Your task to perform on an android device: toggle airplane mode Image 0: 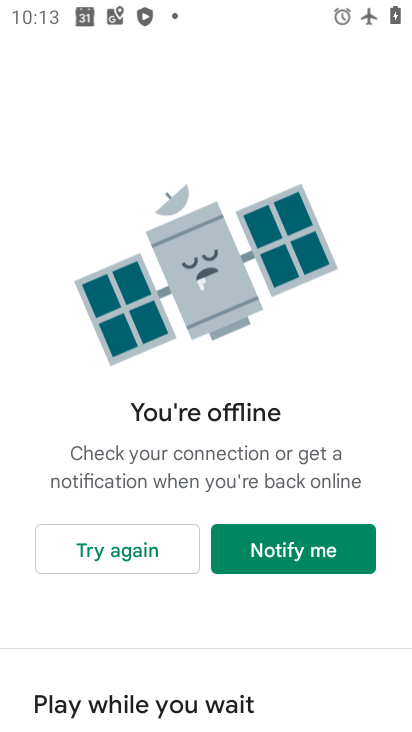
Step 0: press home button
Your task to perform on an android device: toggle airplane mode Image 1: 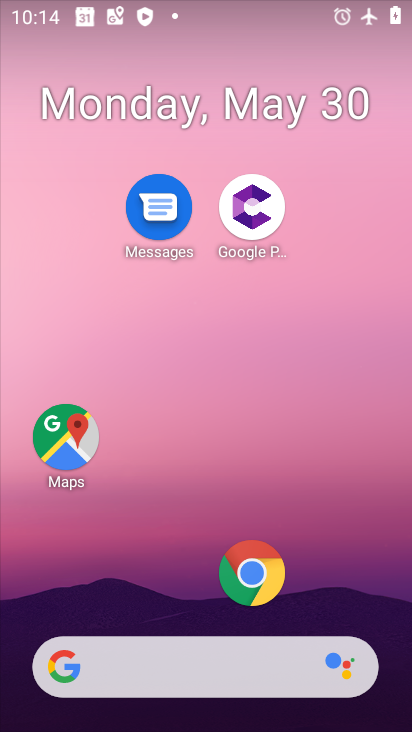
Step 1: drag from (206, 652) to (298, 0)
Your task to perform on an android device: toggle airplane mode Image 2: 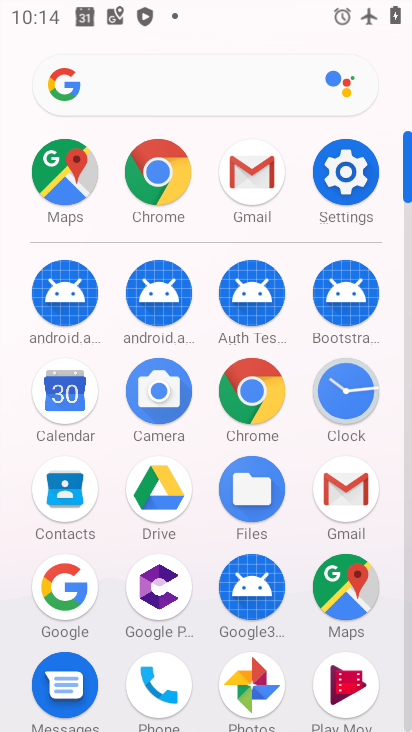
Step 2: click (357, 185)
Your task to perform on an android device: toggle airplane mode Image 3: 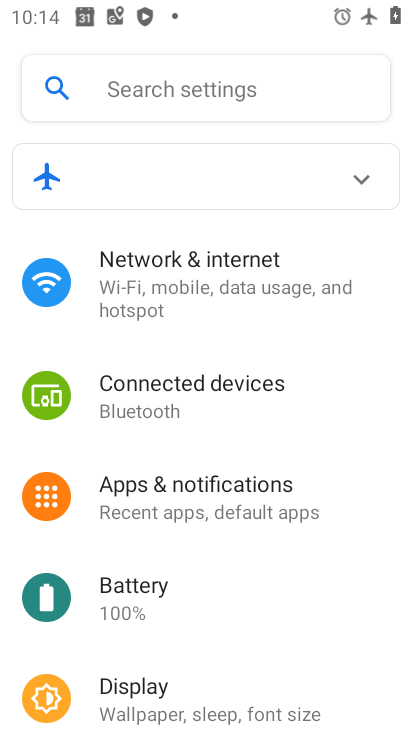
Step 3: click (204, 298)
Your task to perform on an android device: toggle airplane mode Image 4: 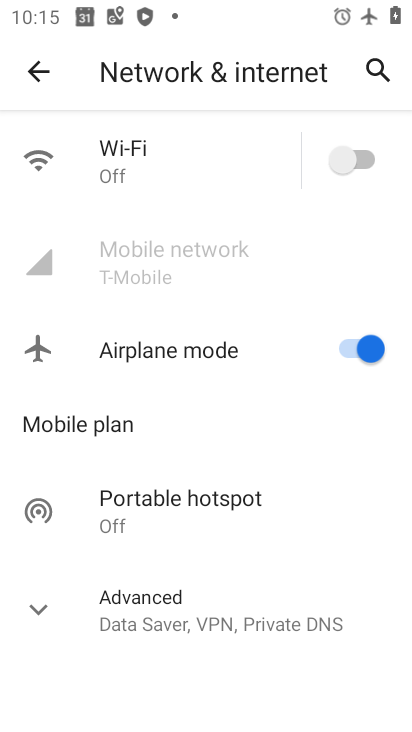
Step 4: click (342, 354)
Your task to perform on an android device: toggle airplane mode Image 5: 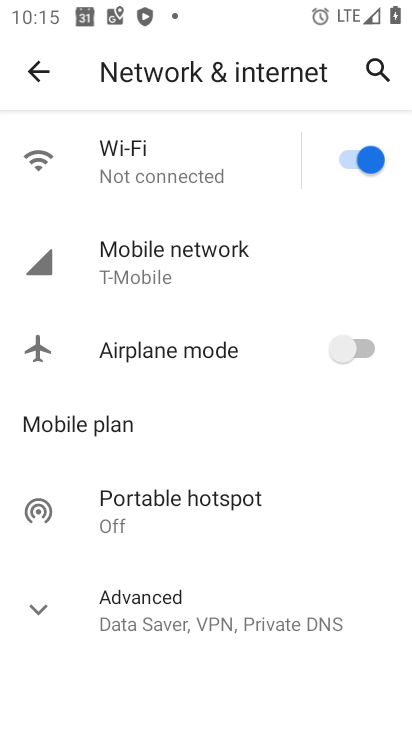
Step 5: task complete